Your task to perform on an android device: turn off improve location accuracy Image 0: 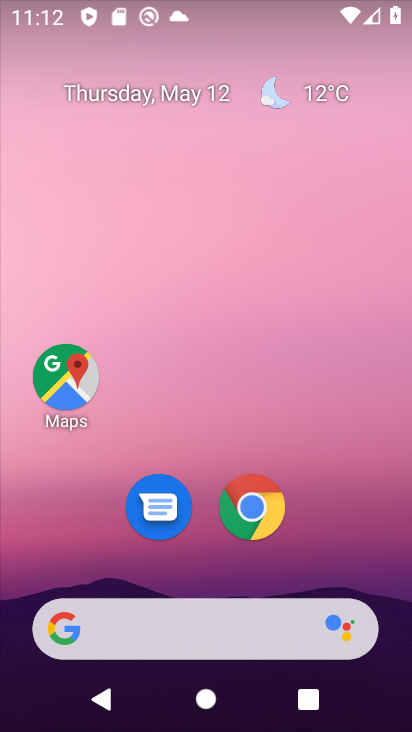
Step 0: drag from (196, 565) to (284, 150)
Your task to perform on an android device: turn off improve location accuracy Image 1: 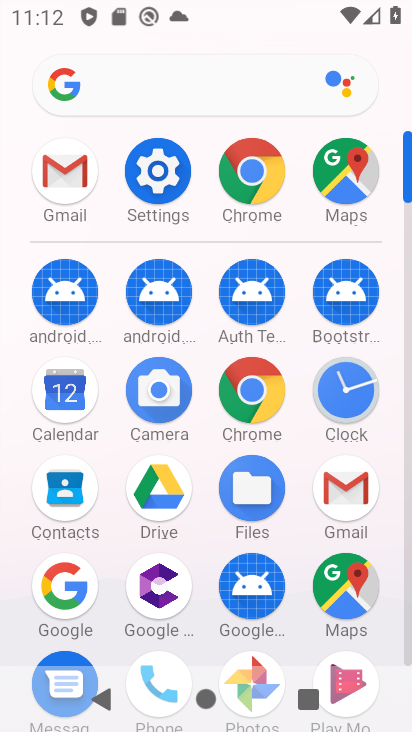
Step 1: click (163, 206)
Your task to perform on an android device: turn off improve location accuracy Image 2: 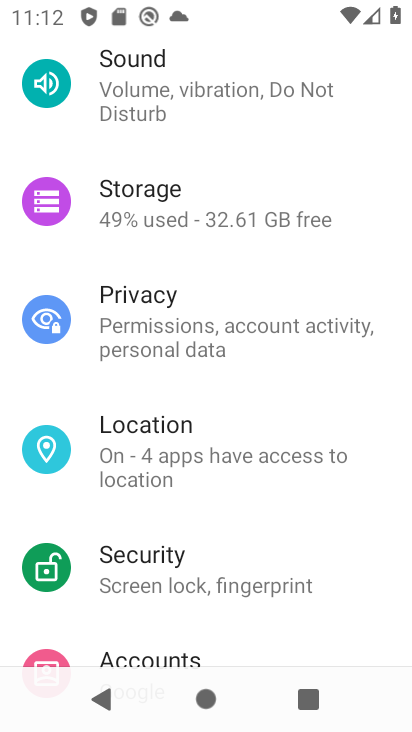
Step 2: click (166, 429)
Your task to perform on an android device: turn off improve location accuracy Image 3: 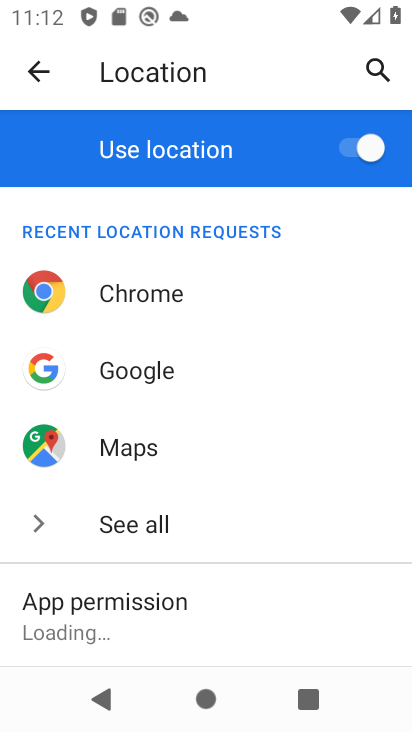
Step 3: drag from (141, 488) to (197, 194)
Your task to perform on an android device: turn off improve location accuracy Image 4: 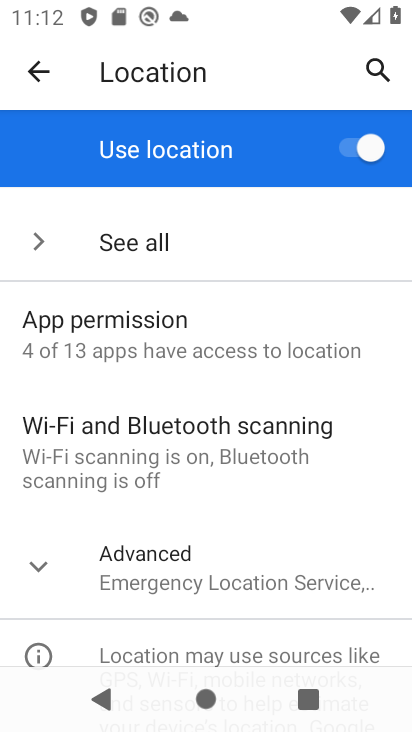
Step 4: drag from (191, 506) to (201, 281)
Your task to perform on an android device: turn off improve location accuracy Image 5: 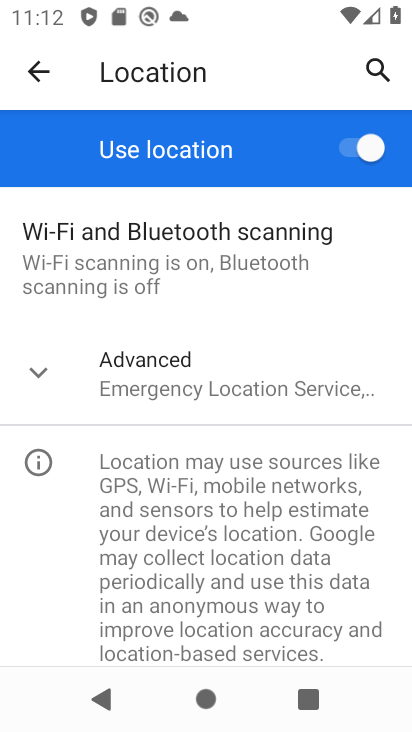
Step 5: click (154, 388)
Your task to perform on an android device: turn off improve location accuracy Image 6: 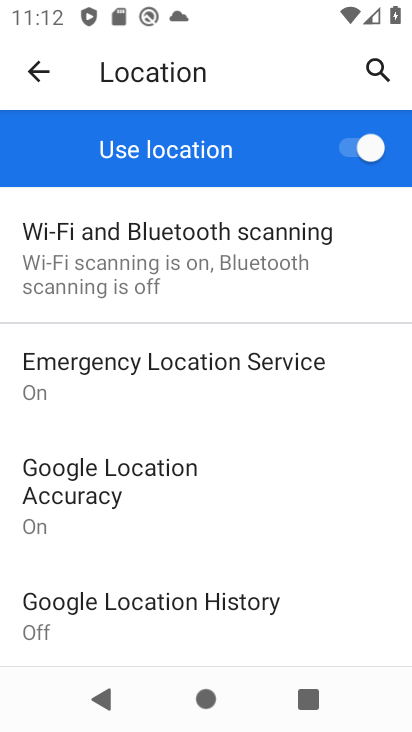
Step 6: click (127, 485)
Your task to perform on an android device: turn off improve location accuracy Image 7: 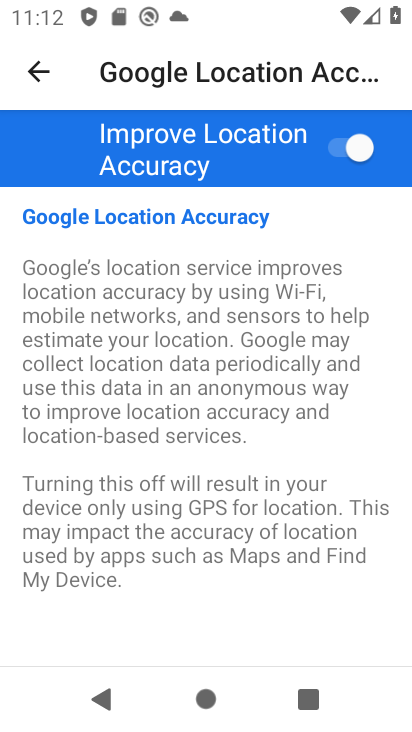
Step 7: click (310, 165)
Your task to perform on an android device: turn off improve location accuracy Image 8: 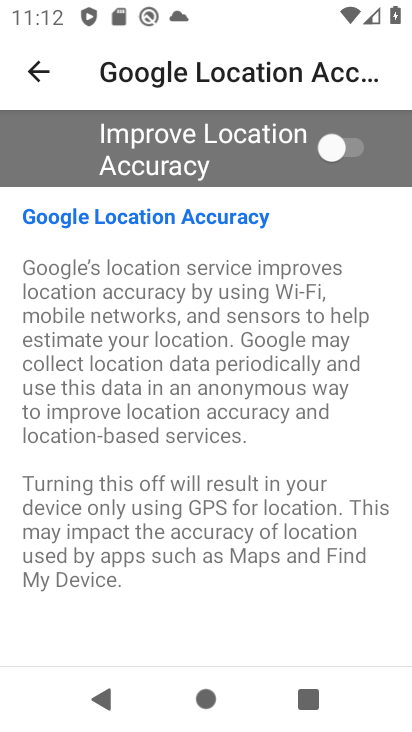
Step 8: task complete